Your task to perform on an android device: turn on location history Image 0: 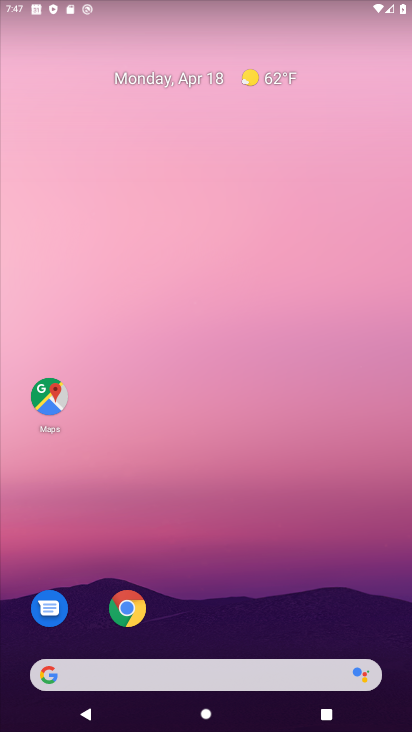
Step 0: drag from (183, 669) to (150, 47)
Your task to perform on an android device: turn on location history Image 1: 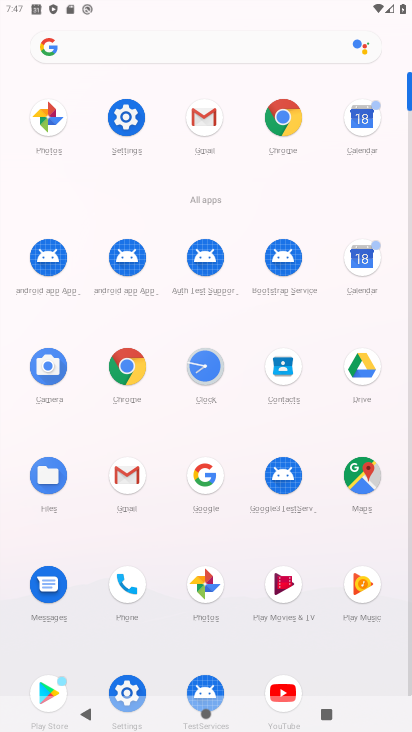
Step 1: click (114, 119)
Your task to perform on an android device: turn on location history Image 2: 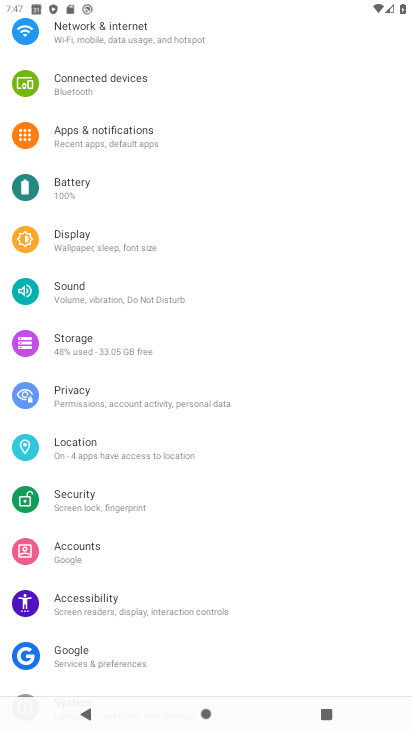
Step 2: click (103, 449)
Your task to perform on an android device: turn on location history Image 3: 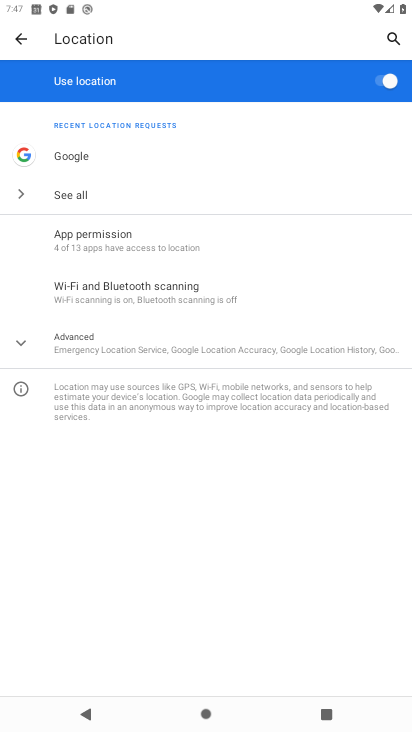
Step 3: click (90, 335)
Your task to perform on an android device: turn on location history Image 4: 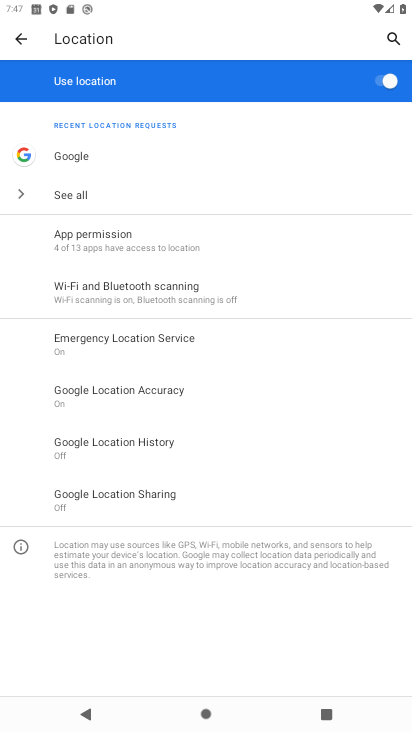
Step 4: click (149, 443)
Your task to perform on an android device: turn on location history Image 5: 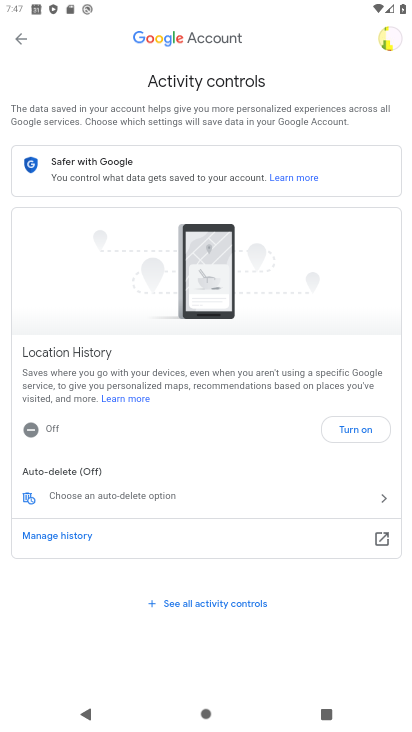
Step 5: click (347, 431)
Your task to perform on an android device: turn on location history Image 6: 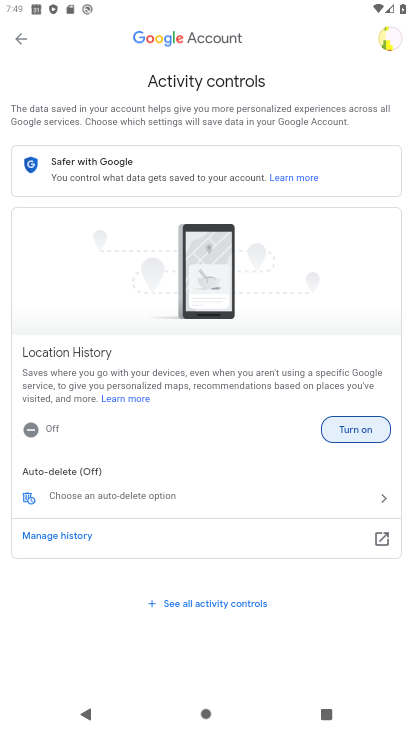
Step 6: task complete